Your task to perform on an android device: What's the weather going to be tomorrow? Image 0: 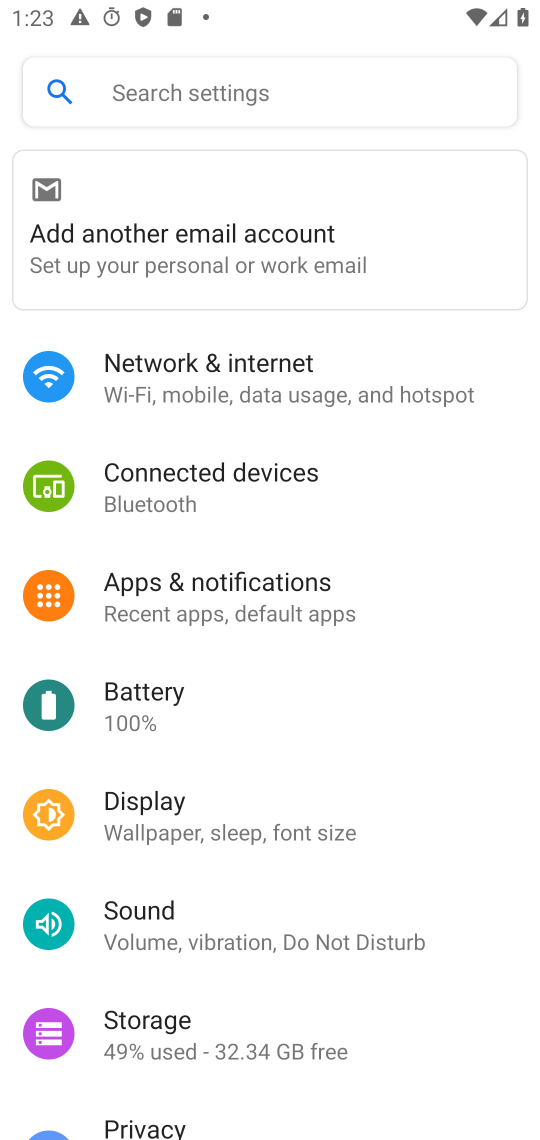
Step 0: press home button
Your task to perform on an android device: What's the weather going to be tomorrow? Image 1: 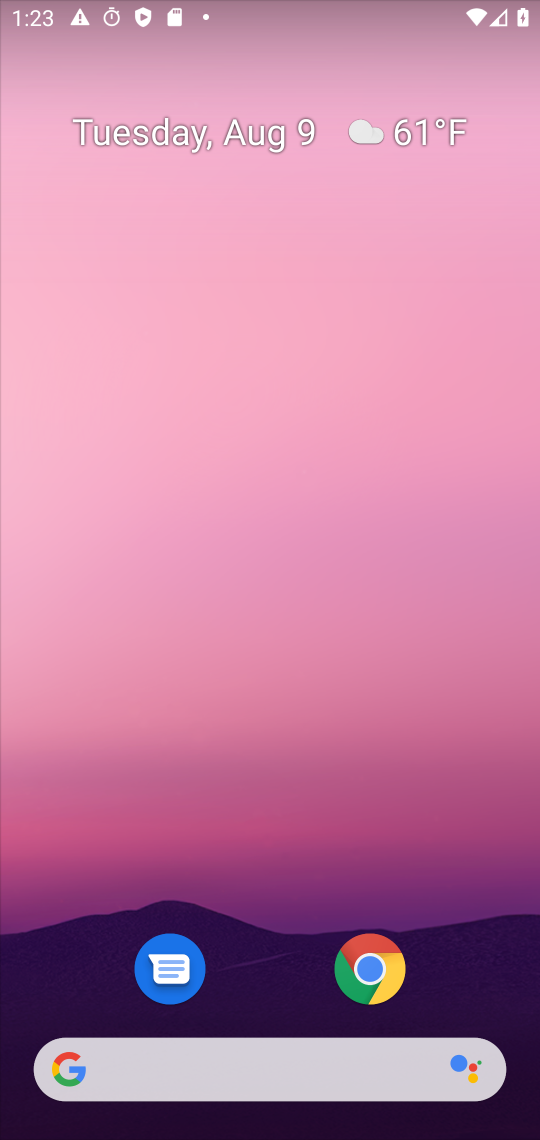
Step 1: click (198, 1064)
Your task to perform on an android device: What's the weather going to be tomorrow? Image 2: 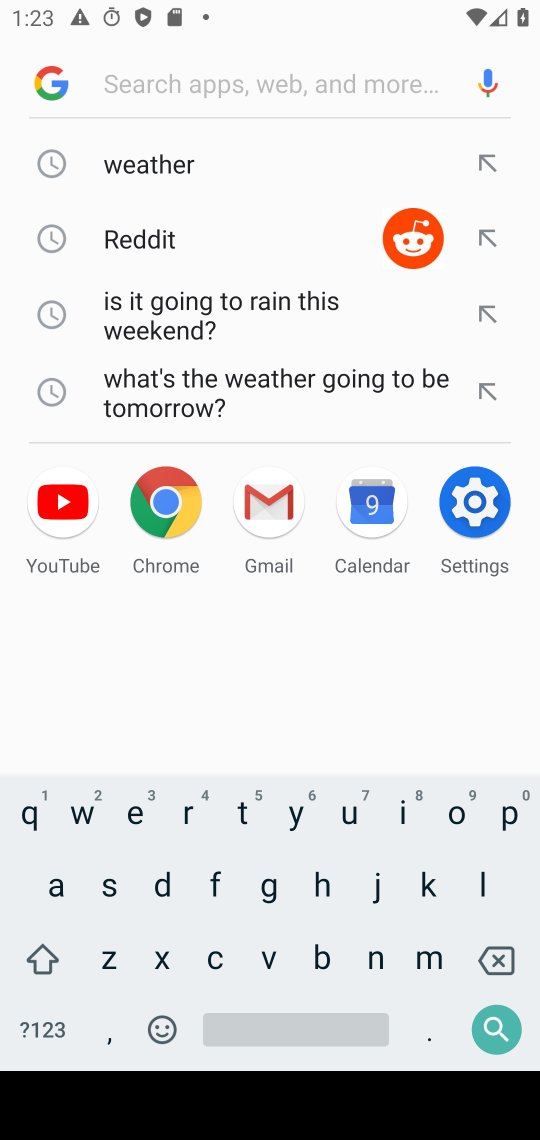
Step 2: click (178, 150)
Your task to perform on an android device: What's the weather going to be tomorrow? Image 3: 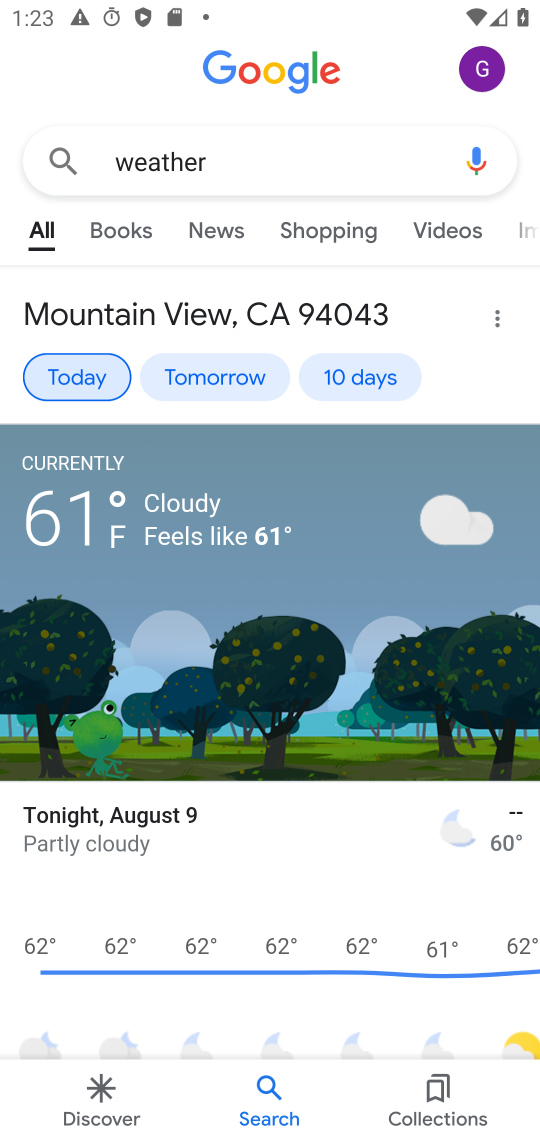
Step 3: click (198, 384)
Your task to perform on an android device: What's the weather going to be tomorrow? Image 4: 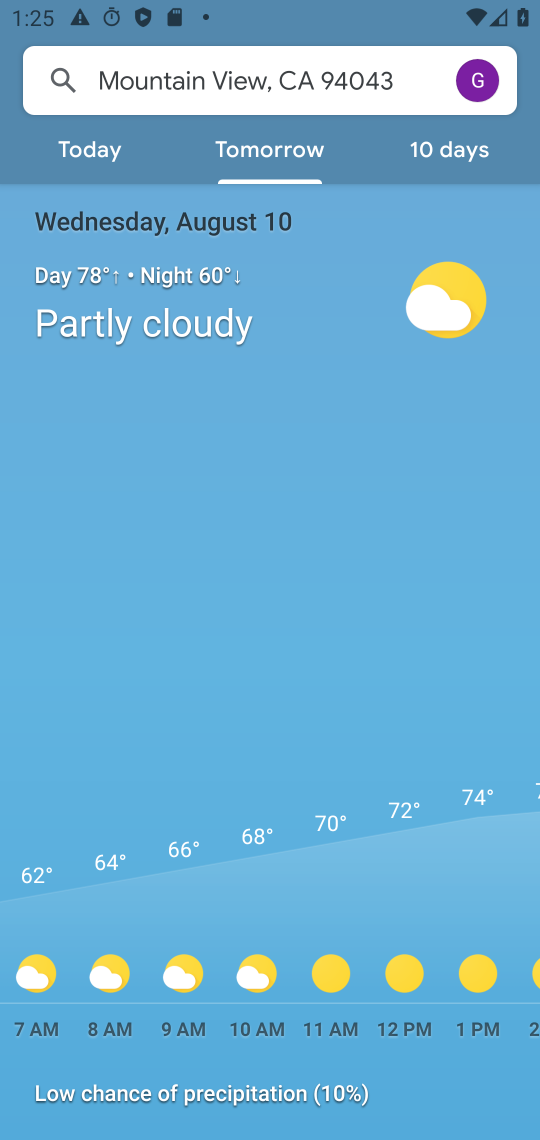
Step 4: task complete